Your task to perform on an android device: Open ESPN.com Image 0: 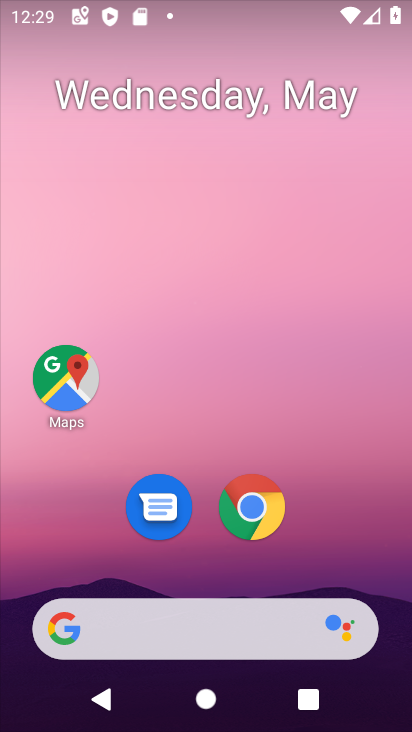
Step 0: click (264, 501)
Your task to perform on an android device: Open ESPN.com Image 1: 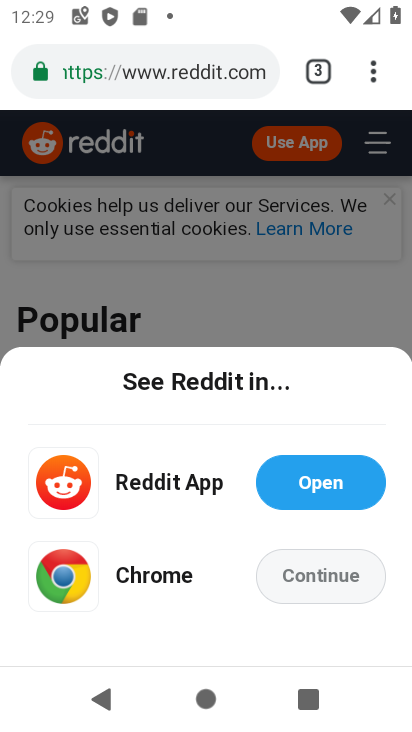
Step 1: click (360, 74)
Your task to perform on an android device: Open ESPN.com Image 2: 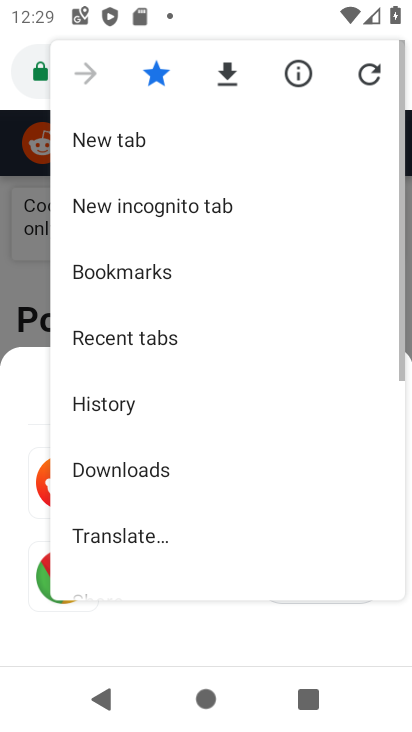
Step 2: click (115, 141)
Your task to perform on an android device: Open ESPN.com Image 3: 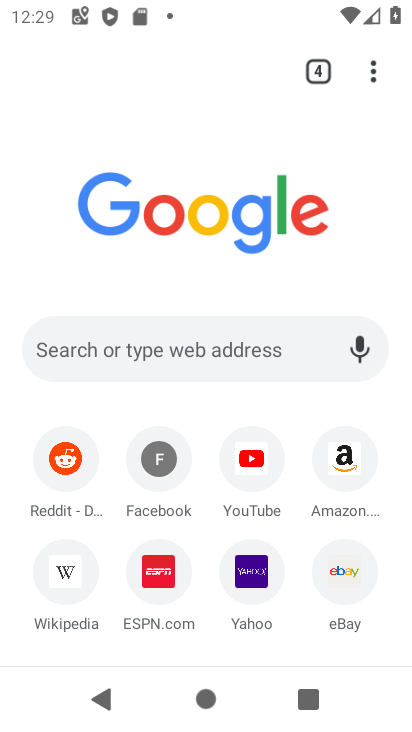
Step 3: click (147, 582)
Your task to perform on an android device: Open ESPN.com Image 4: 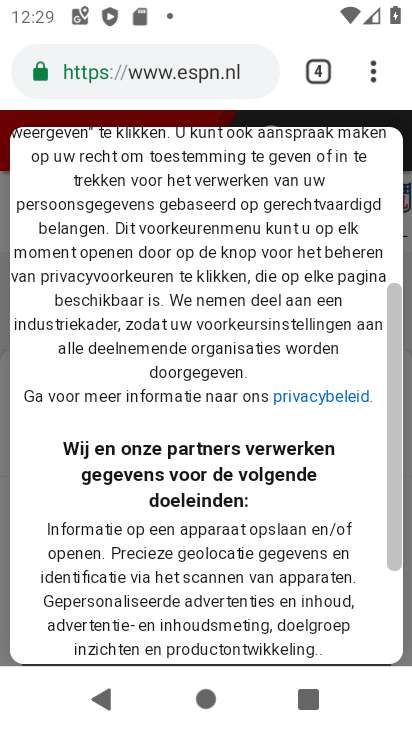
Step 4: task complete